Your task to perform on an android device: What's on my calendar tomorrow? Image 0: 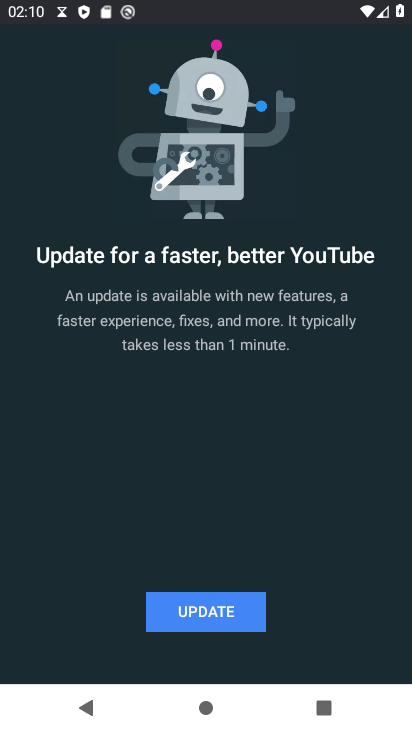
Step 0: press home button
Your task to perform on an android device: What's on my calendar tomorrow? Image 1: 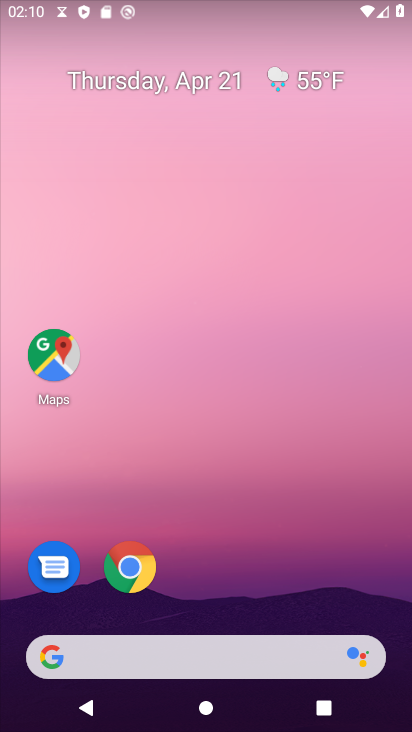
Step 1: drag from (163, 628) to (302, 180)
Your task to perform on an android device: What's on my calendar tomorrow? Image 2: 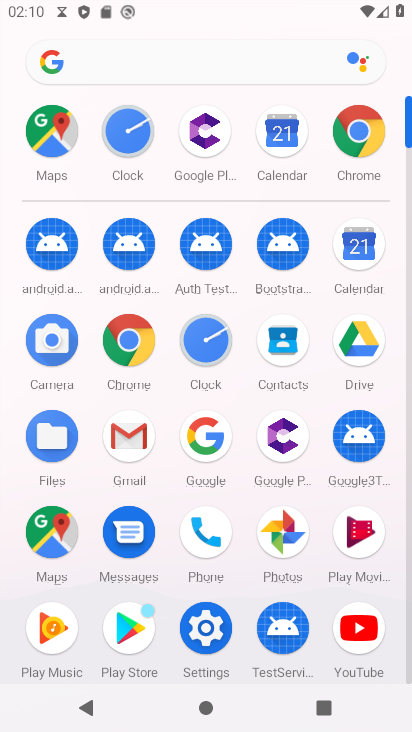
Step 2: click (372, 256)
Your task to perform on an android device: What's on my calendar tomorrow? Image 3: 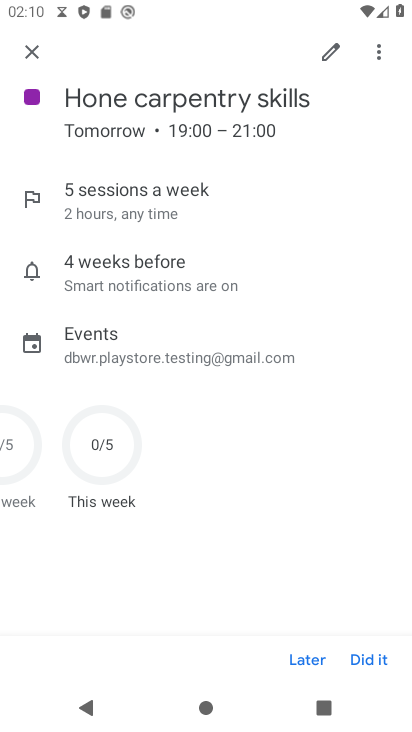
Step 3: click (35, 46)
Your task to perform on an android device: What's on my calendar tomorrow? Image 4: 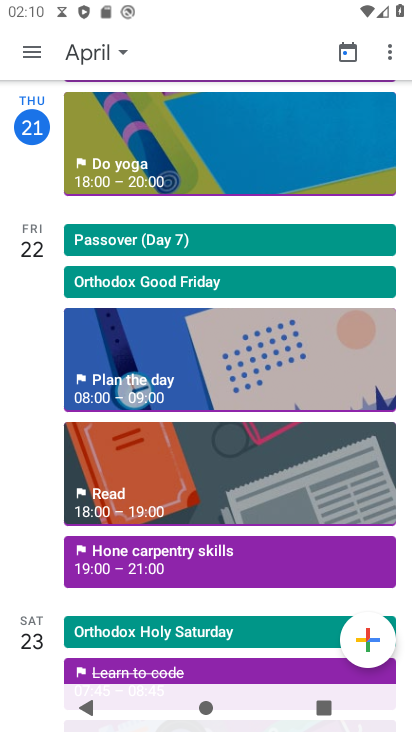
Step 4: click (95, 42)
Your task to perform on an android device: What's on my calendar tomorrow? Image 5: 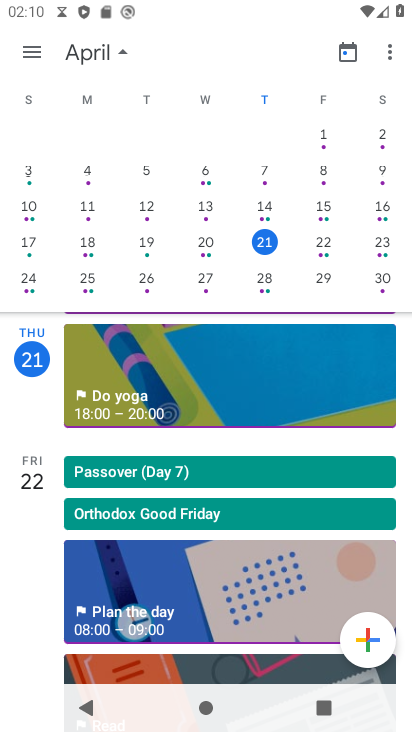
Step 5: click (321, 243)
Your task to perform on an android device: What's on my calendar tomorrow? Image 6: 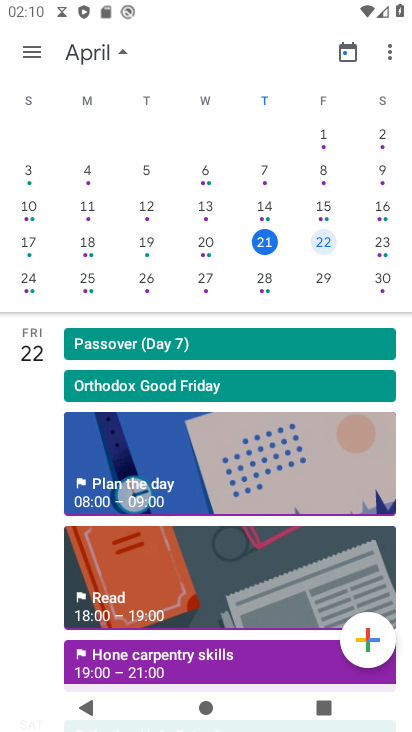
Step 6: click (36, 50)
Your task to perform on an android device: What's on my calendar tomorrow? Image 7: 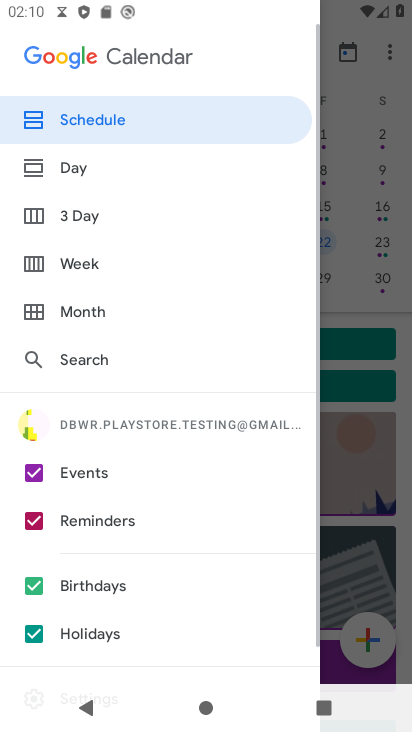
Step 7: click (126, 120)
Your task to perform on an android device: What's on my calendar tomorrow? Image 8: 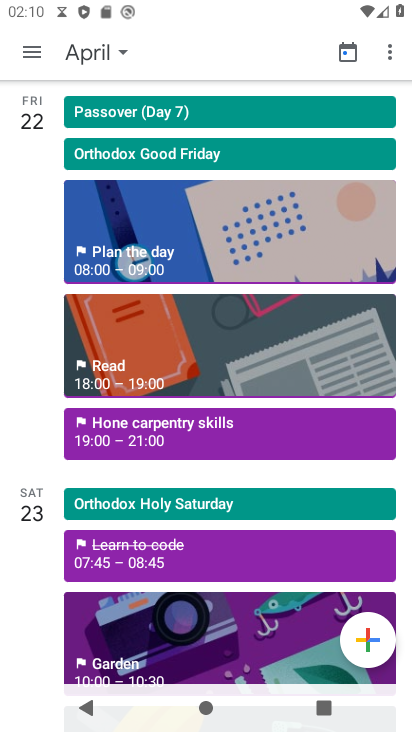
Step 8: click (28, 49)
Your task to perform on an android device: What's on my calendar tomorrow? Image 9: 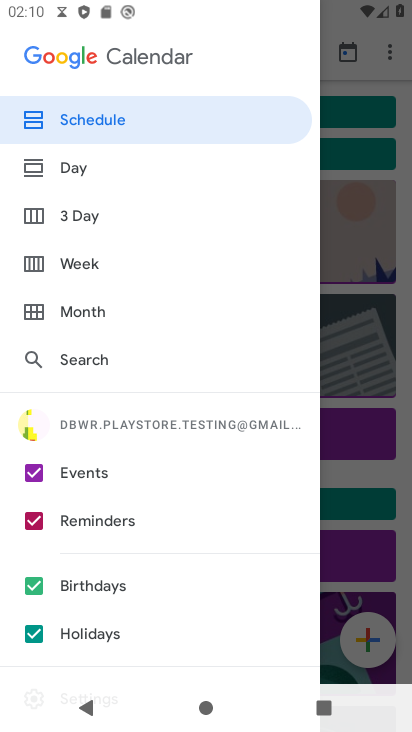
Step 9: click (71, 165)
Your task to perform on an android device: What's on my calendar tomorrow? Image 10: 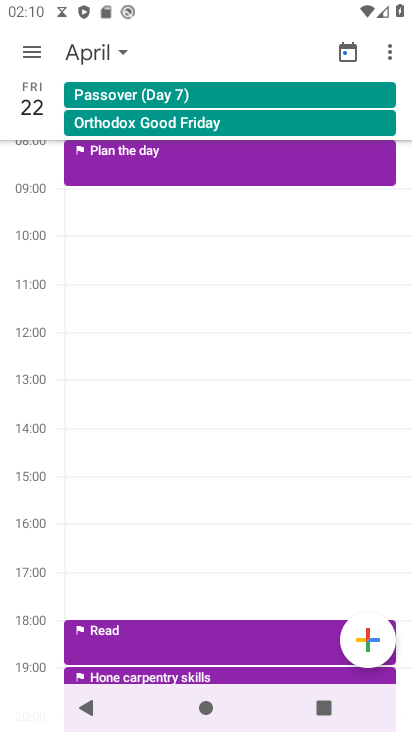
Step 10: task complete